Your task to perform on an android device: toggle sleep mode Image 0: 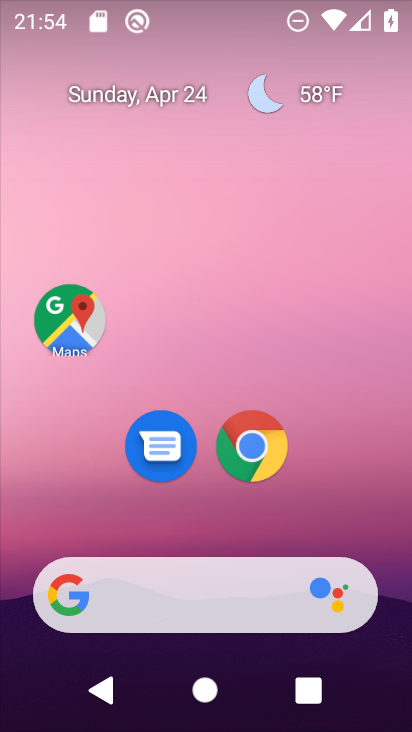
Step 0: drag from (187, 611) to (333, 149)
Your task to perform on an android device: toggle sleep mode Image 1: 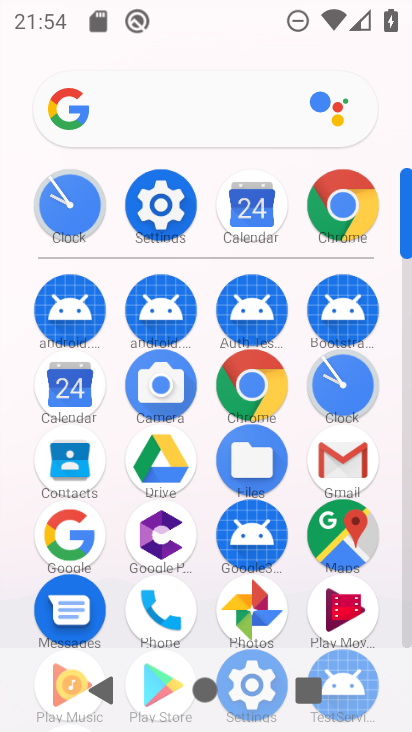
Step 1: click (161, 215)
Your task to perform on an android device: toggle sleep mode Image 2: 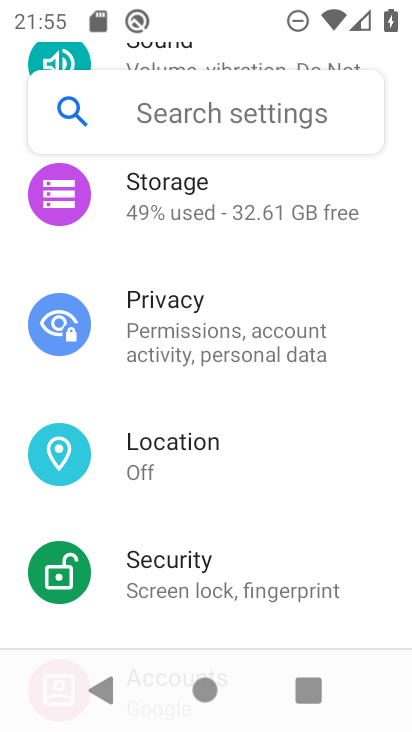
Step 2: drag from (302, 261) to (286, 559)
Your task to perform on an android device: toggle sleep mode Image 3: 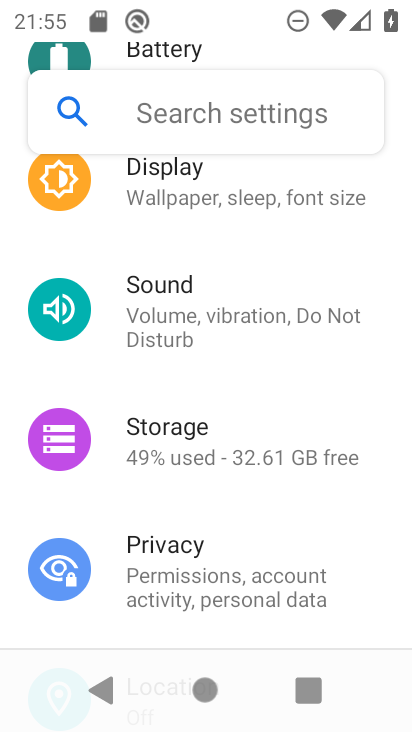
Step 3: click (240, 190)
Your task to perform on an android device: toggle sleep mode Image 4: 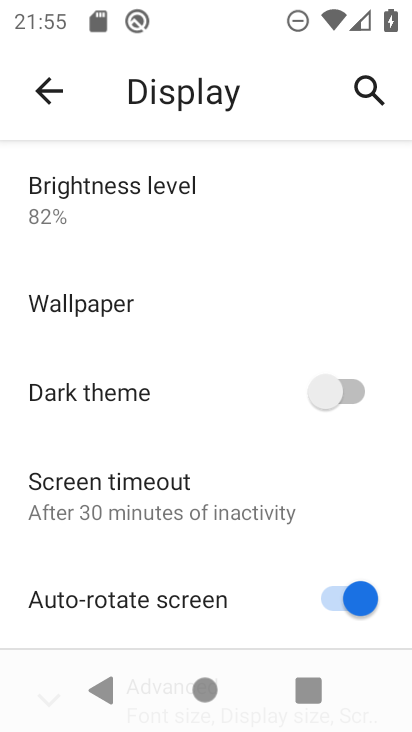
Step 4: task complete